Your task to perform on an android device: Go to privacy settings Image 0: 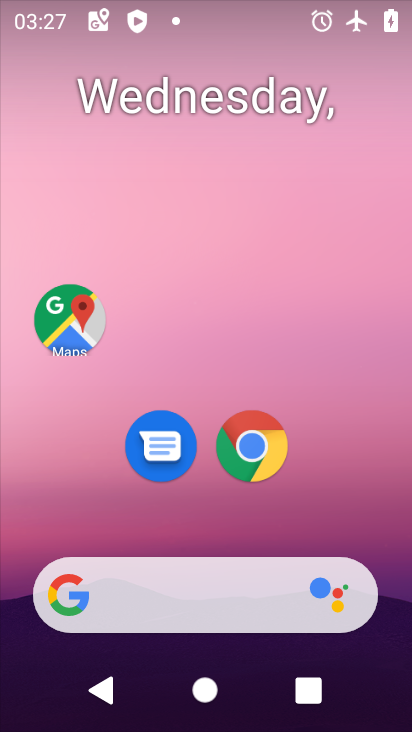
Step 0: drag from (199, 526) to (209, 235)
Your task to perform on an android device: Go to privacy settings Image 1: 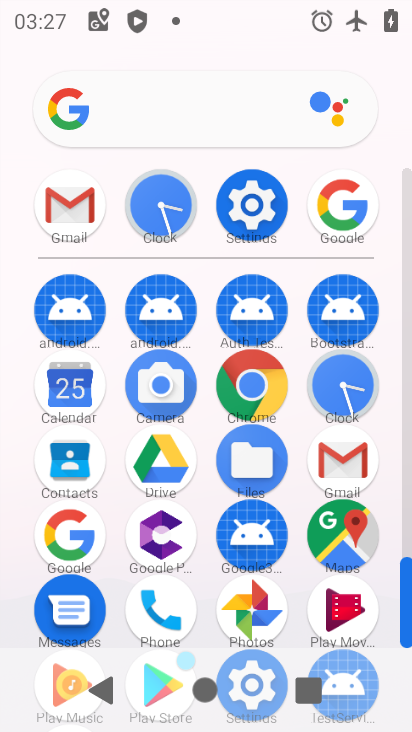
Step 1: click (256, 213)
Your task to perform on an android device: Go to privacy settings Image 2: 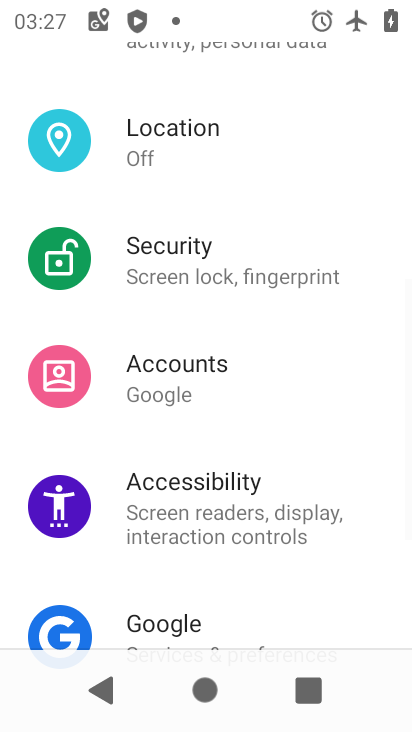
Step 2: drag from (260, 527) to (271, 286)
Your task to perform on an android device: Go to privacy settings Image 3: 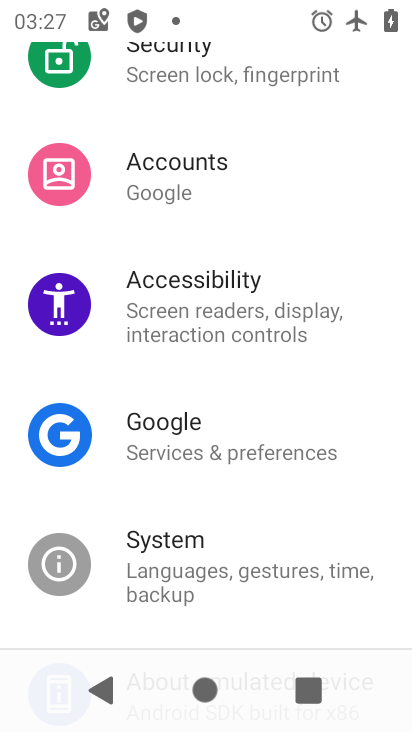
Step 3: drag from (257, 498) to (259, 248)
Your task to perform on an android device: Go to privacy settings Image 4: 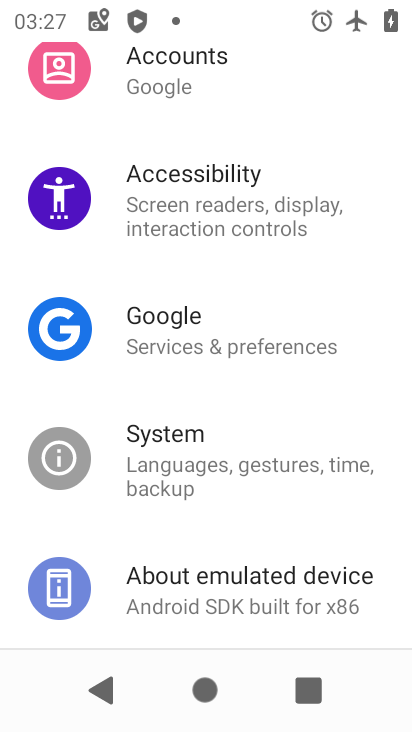
Step 4: drag from (264, 505) to (254, 277)
Your task to perform on an android device: Go to privacy settings Image 5: 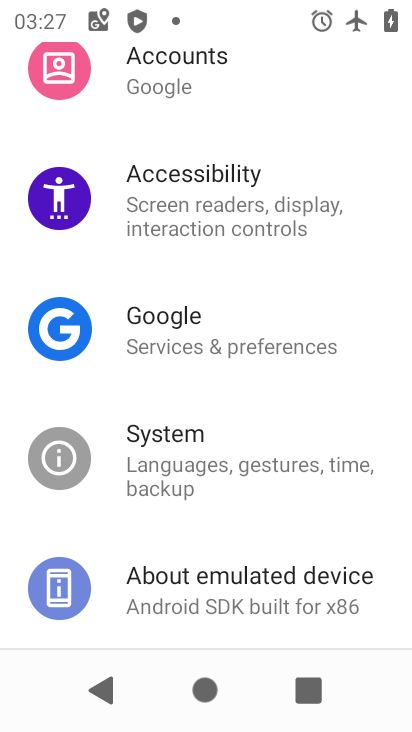
Step 5: drag from (279, 212) to (279, 500)
Your task to perform on an android device: Go to privacy settings Image 6: 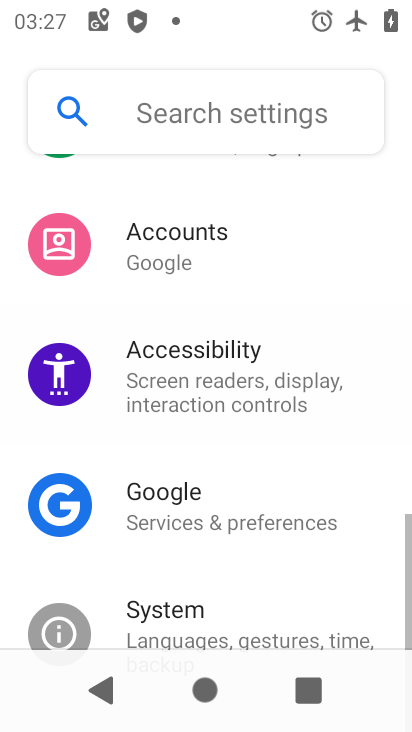
Step 6: drag from (227, 279) to (227, 535)
Your task to perform on an android device: Go to privacy settings Image 7: 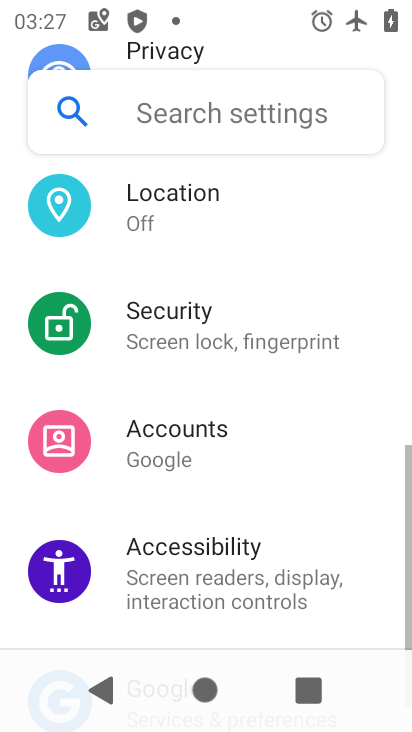
Step 7: drag from (218, 308) to (244, 515)
Your task to perform on an android device: Go to privacy settings Image 8: 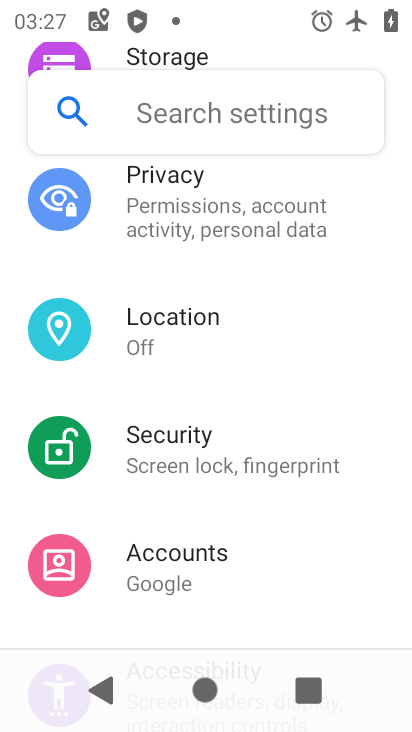
Step 8: click (246, 223)
Your task to perform on an android device: Go to privacy settings Image 9: 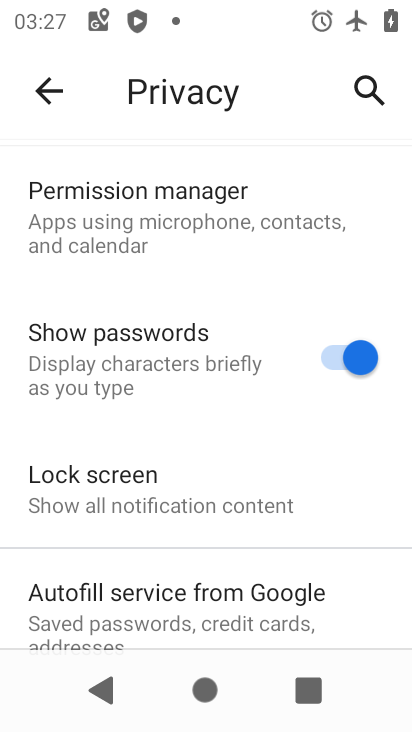
Step 9: task complete